Your task to perform on an android device: What's the weather? Image 0: 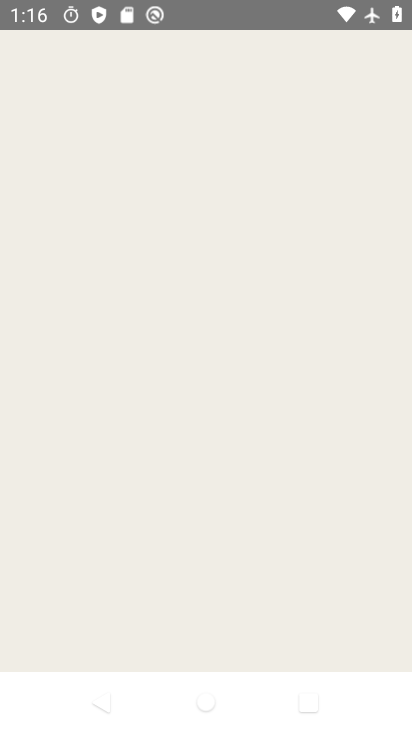
Step 0: press home button
Your task to perform on an android device: What's the weather? Image 1: 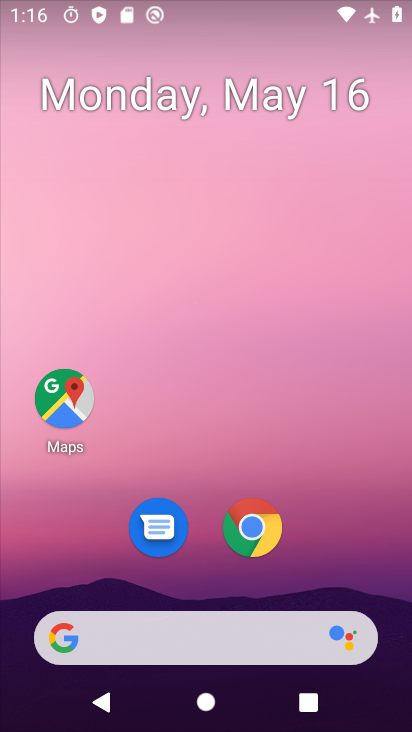
Step 1: click (70, 640)
Your task to perform on an android device: What's the weather? Image 2: 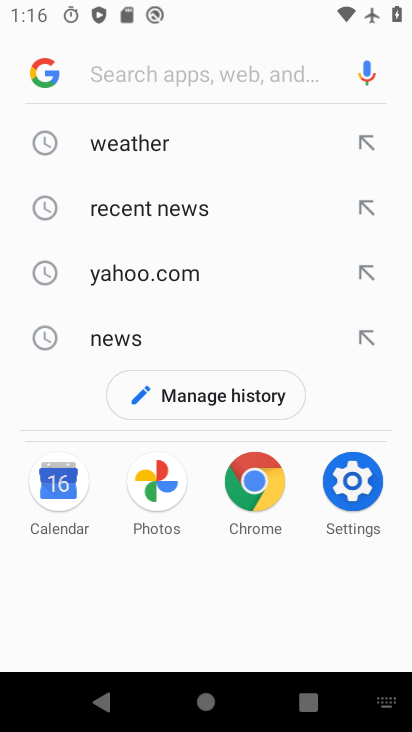
Step 2: click (151, 137)
Your task to perform on an android device: What's the weather? Image 3: 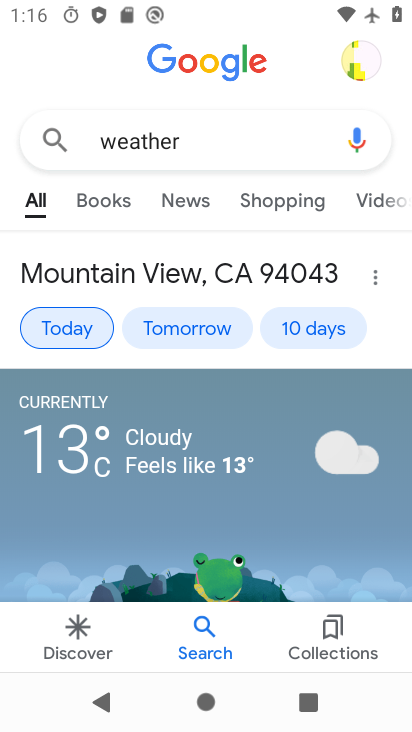
Step 3: task complete